Your task to perform on an android device: Open calendar and show me the third week of next month Image 0: 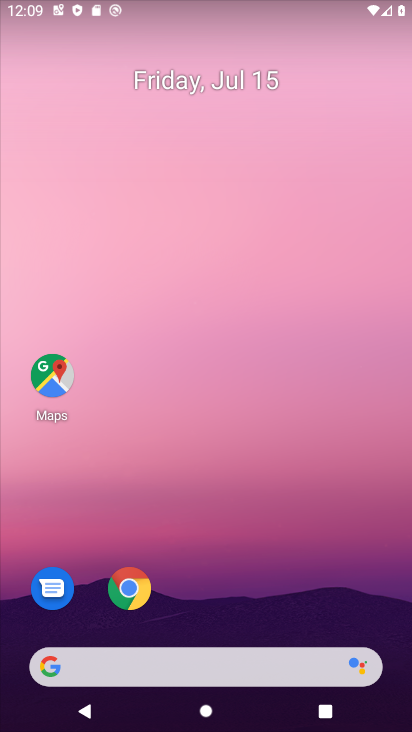
Step 0: drag from (155, 678) to (98, 100)
Your task to perform on an android device: Open calendar and show me the third week of next month Image 1: 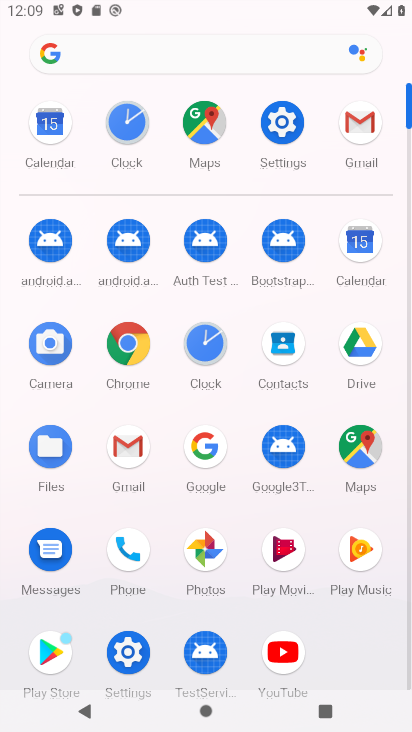
Step 1: click (359, 249)
Your task to perform on an android device: Open calendar and show me the third week of next month Image 2: 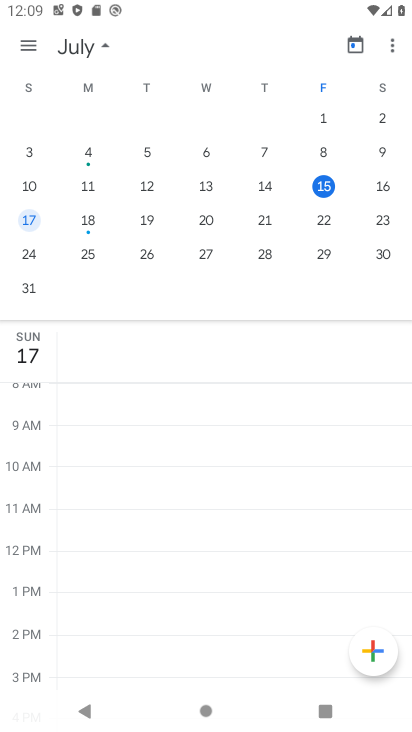
Step 2: drag from (370, 146) to (17, 231)
Your task to perform on an android device: Open calendar and show me the third week of next month Image 3: 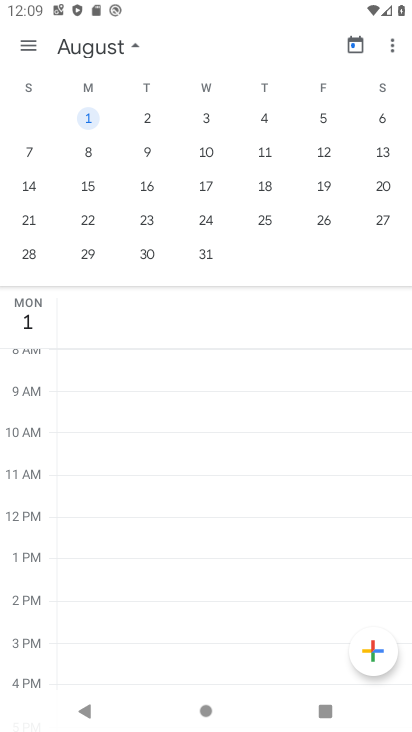
Step 3: click (27, 188)
Your task to perform on an android device: Open calendar and show me the third week of next month Image 4: 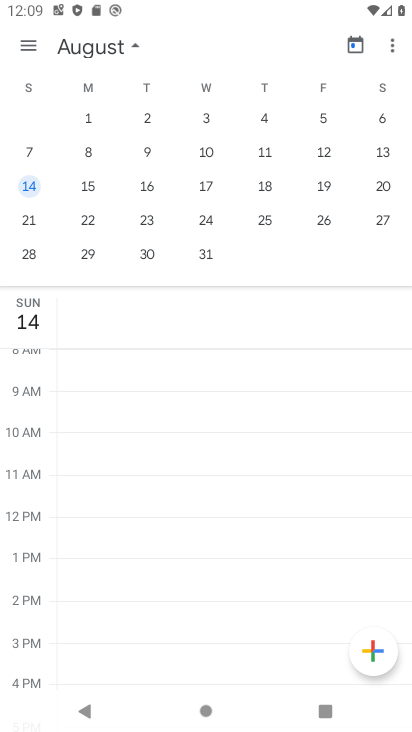
Step 4: task complete